Your task to perform on an android device: Go to Google maps Image 0: 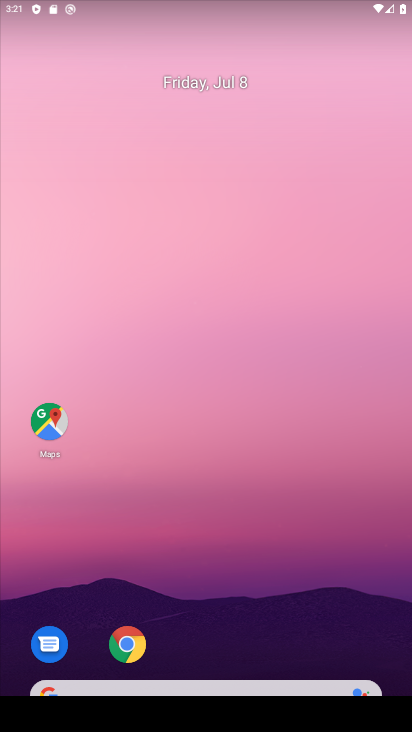
Step 0: drag from (102, 356) to (57, 97)
Your task to perform on an android device: Go to Google maps Image 1: 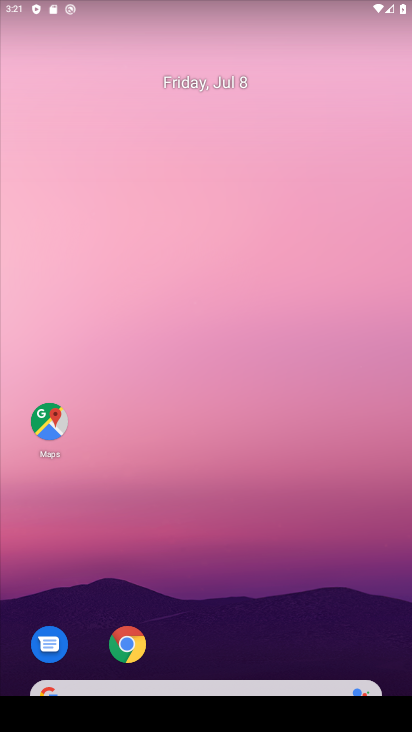
Step 1: drag from (321, 603) to (277, 211)
Your task to perform on an android device: Go to Google maps Image 2: 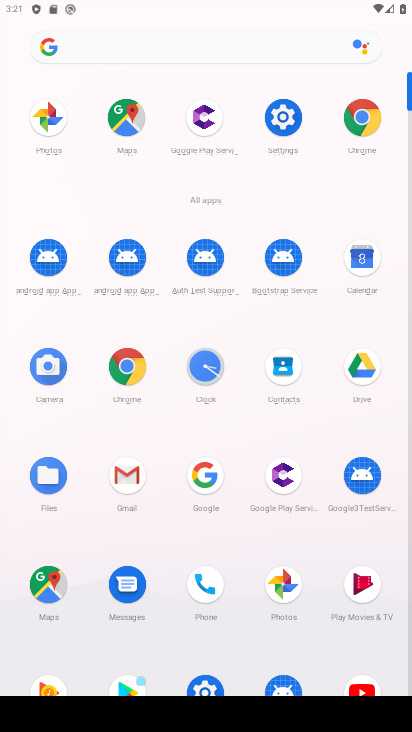
Step 2: click (47, 601)
Your task to perform on an android device: Go to Google maps Image 3: 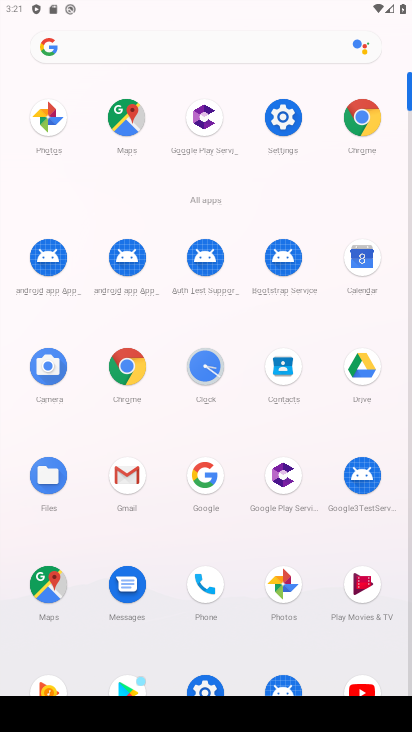
Step 3: click (47, 601)
Your task to perform on an android device: Go to Google maps Image 4: 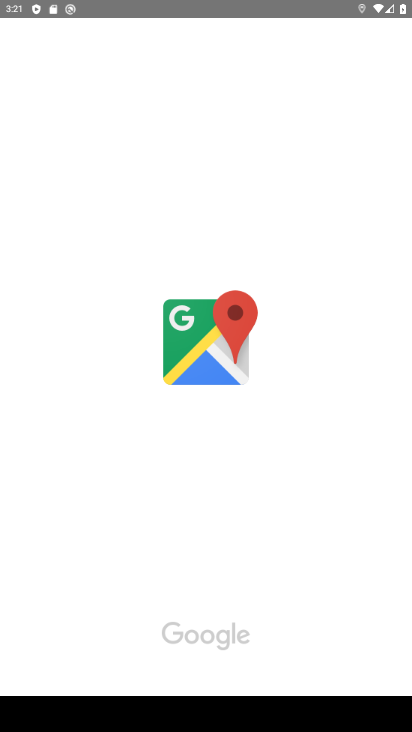
Step 4: click (48, 585)
Your task to perform on an android device: Go to Google maps Image 5: 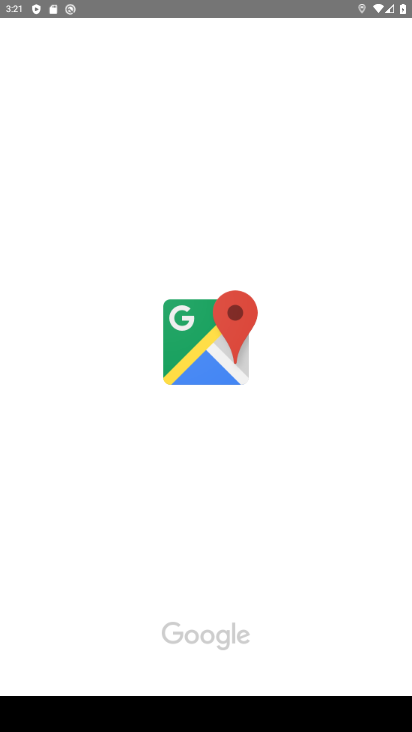
Step 5: click (52, 582)
Your task to perform on an android device: Go to Google maps Image 6: 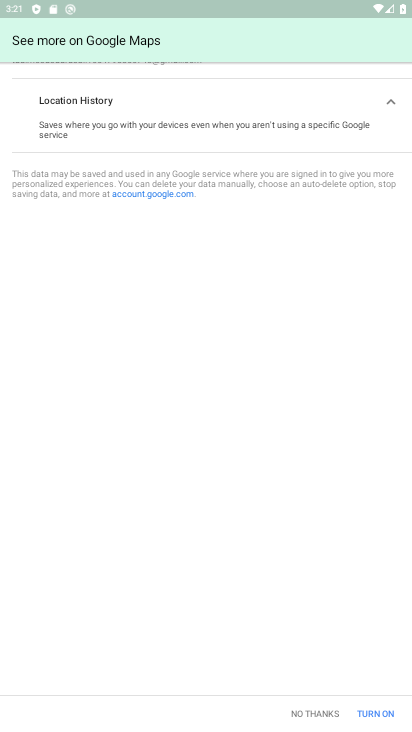
Step 6: task complete